Your task to perform on an android device: turn off translation in the chrome app Image 0: 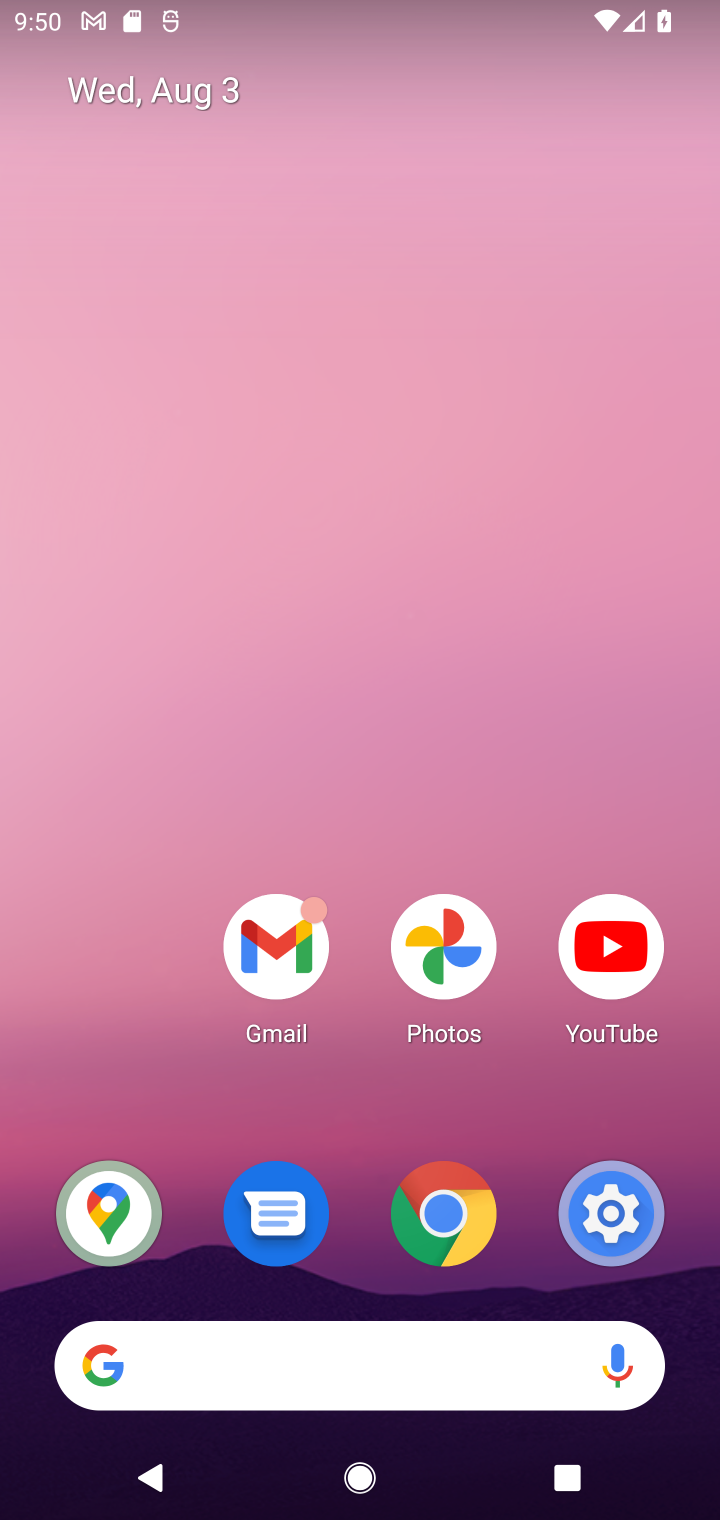
Step 0: click (428, 1233)
Your task to perform on an android device: turn off translation in the chrome app Image 1: 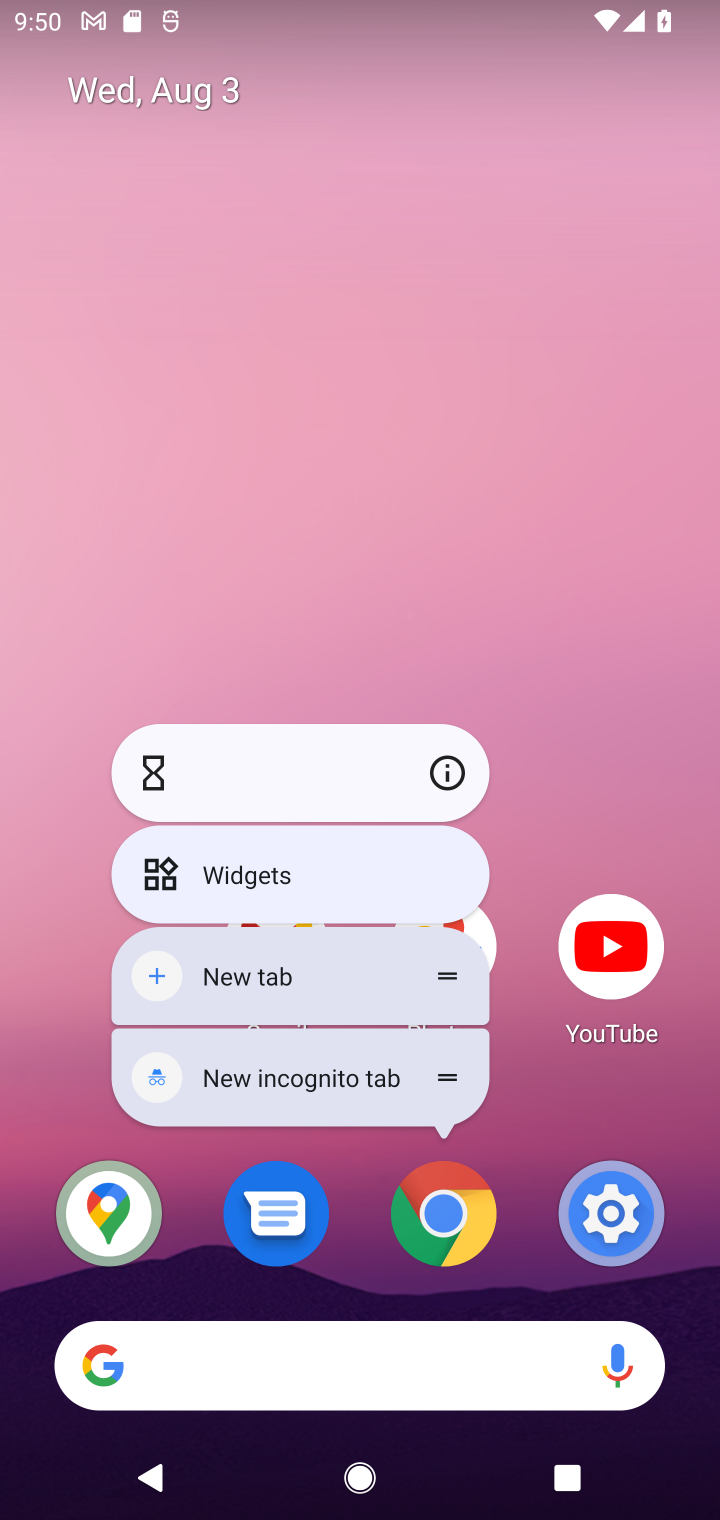
Step 1: click (501, 1214)
Your task to perform on an android device: turn off translation in the chrome app Image 2: 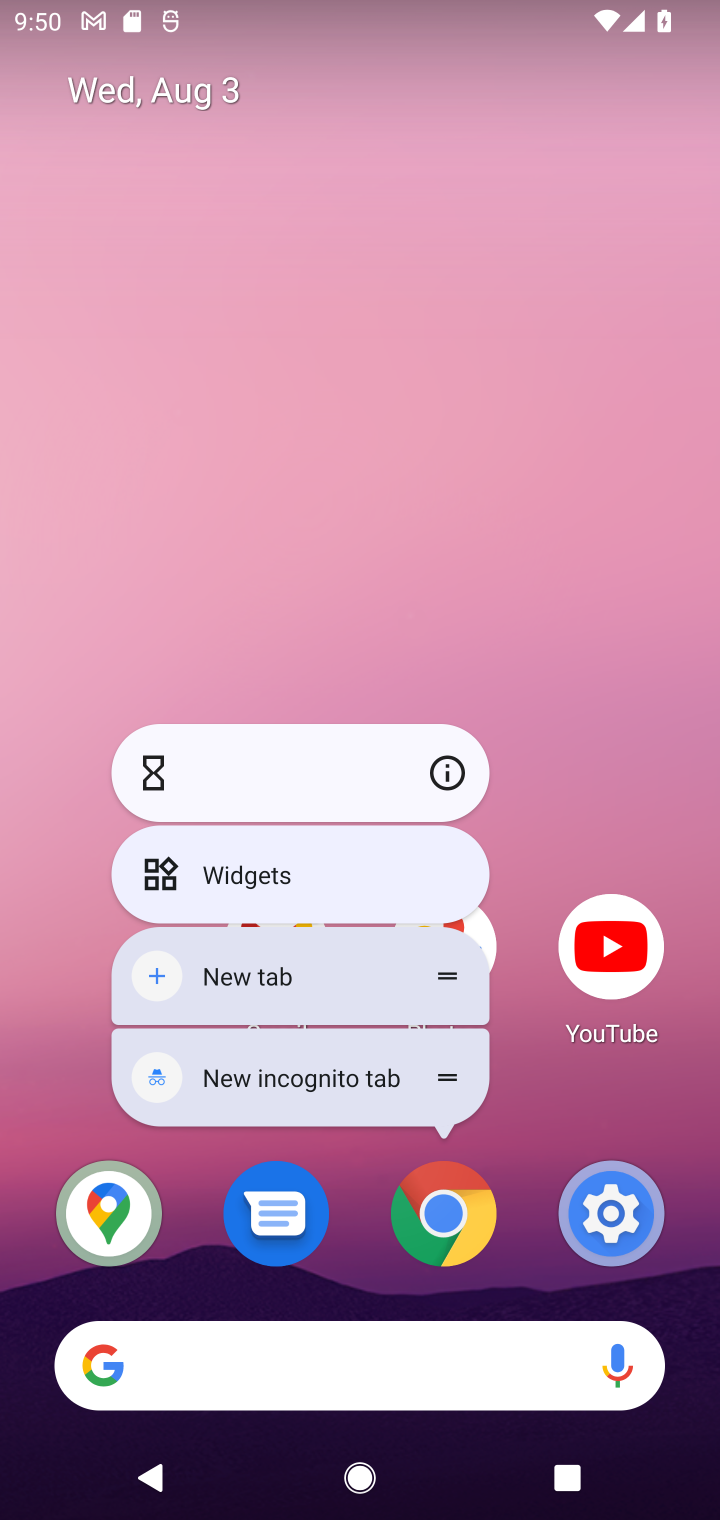
Step 2: click (445, 1231)
Your task to perform on an android device: turn off translation in the chrome app Image 3: 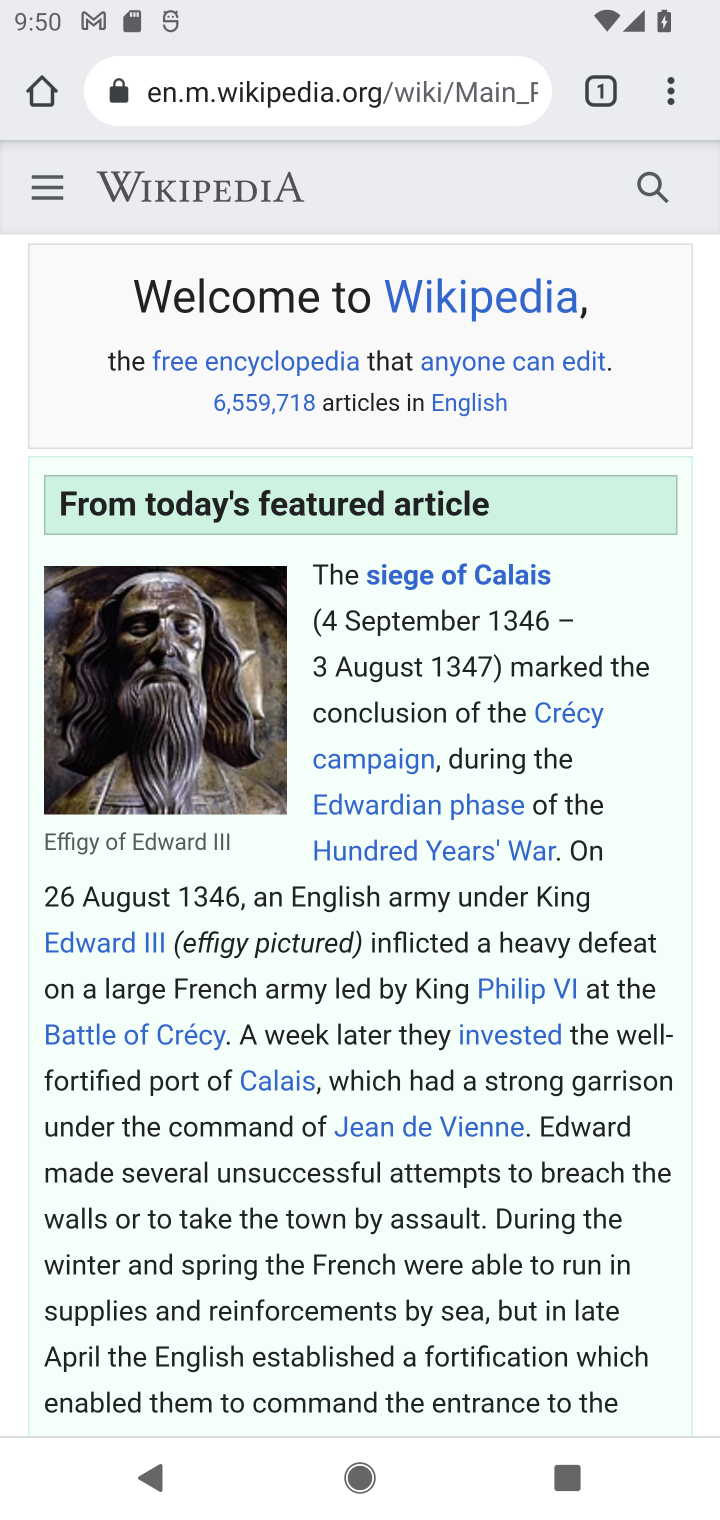
Step 3: click (671, 104)
Your task to perform on an android device: turn off translation in the chrome app Image 4: 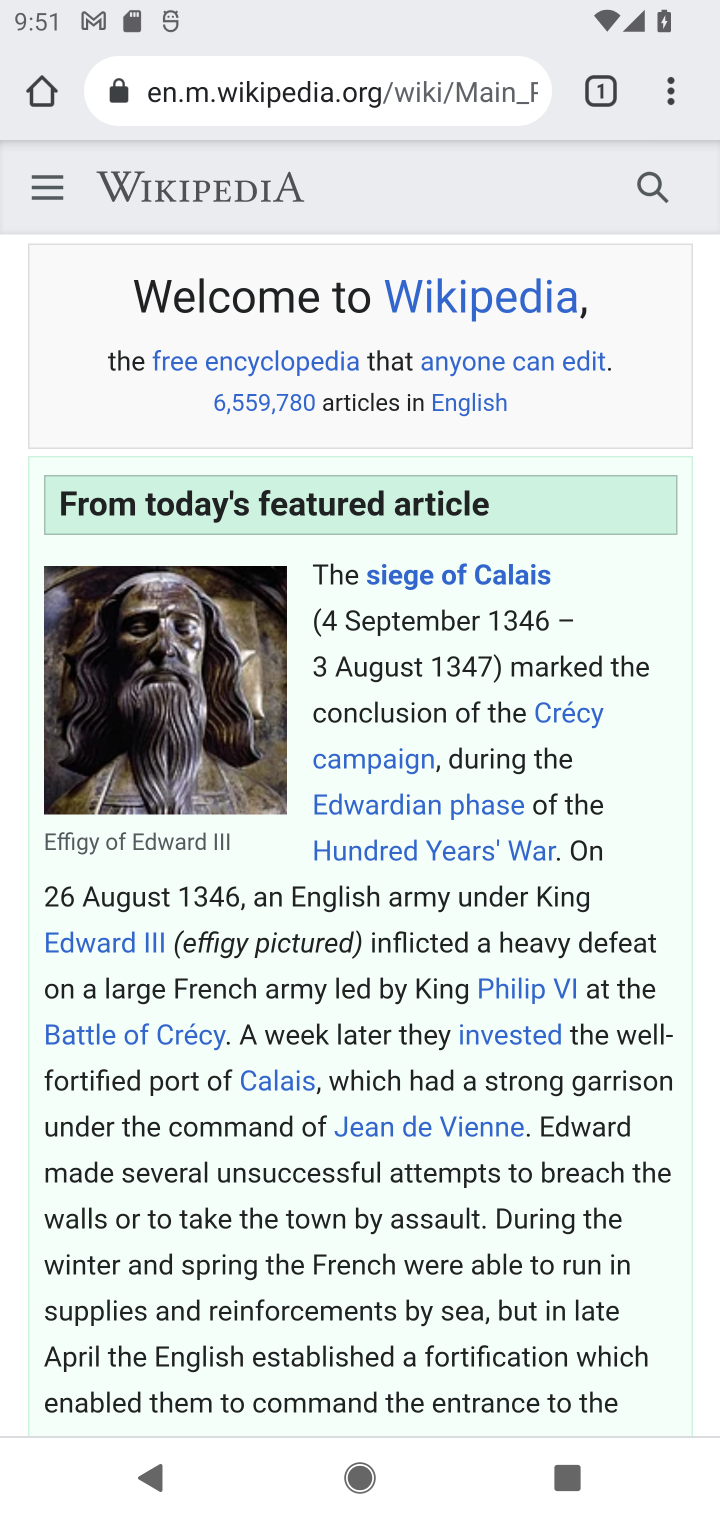
Step 4: click (665, 98)
Your task to perform on an android device: turn off translation in the chrome app Image 5: 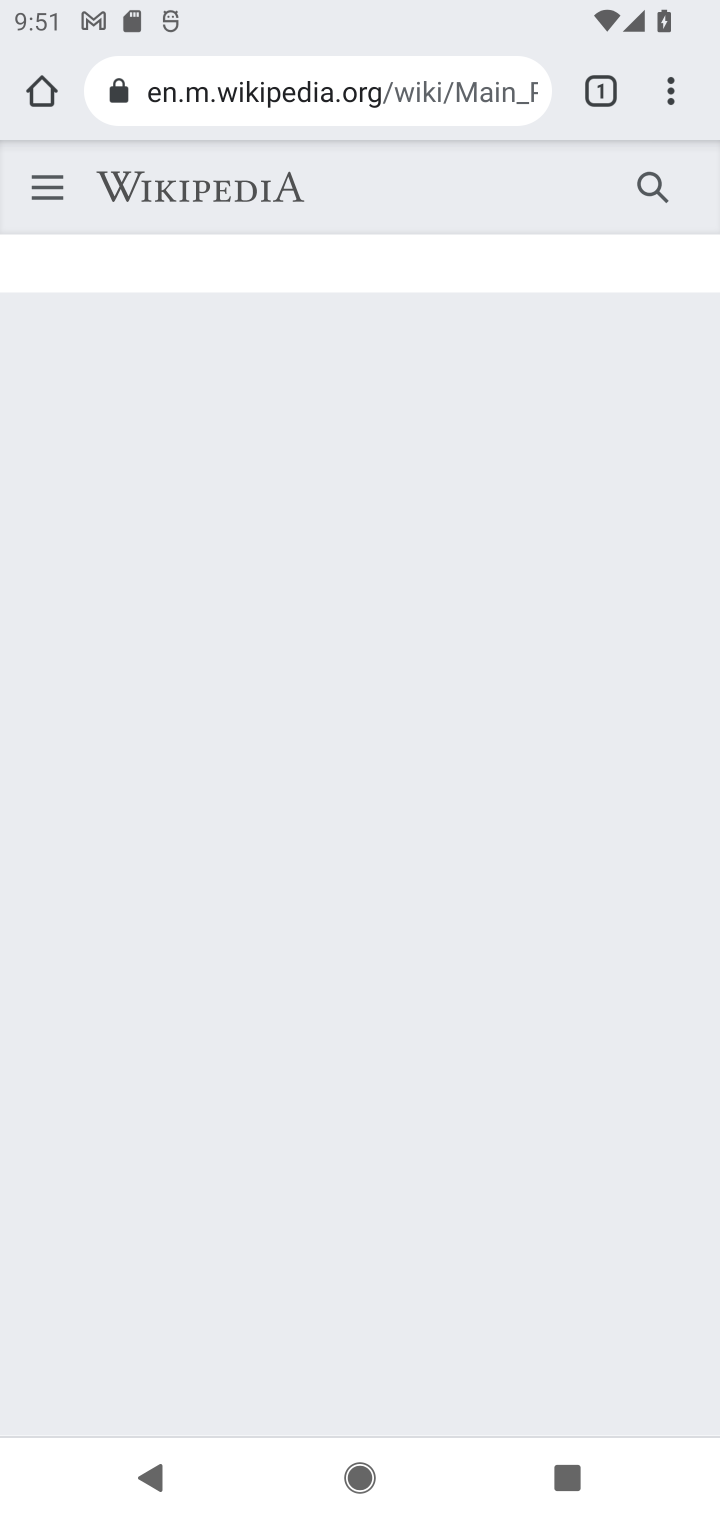
Step 5: click (653, 89)
Your task to perform on an android device: turn off translation in the chrome app Image 6: 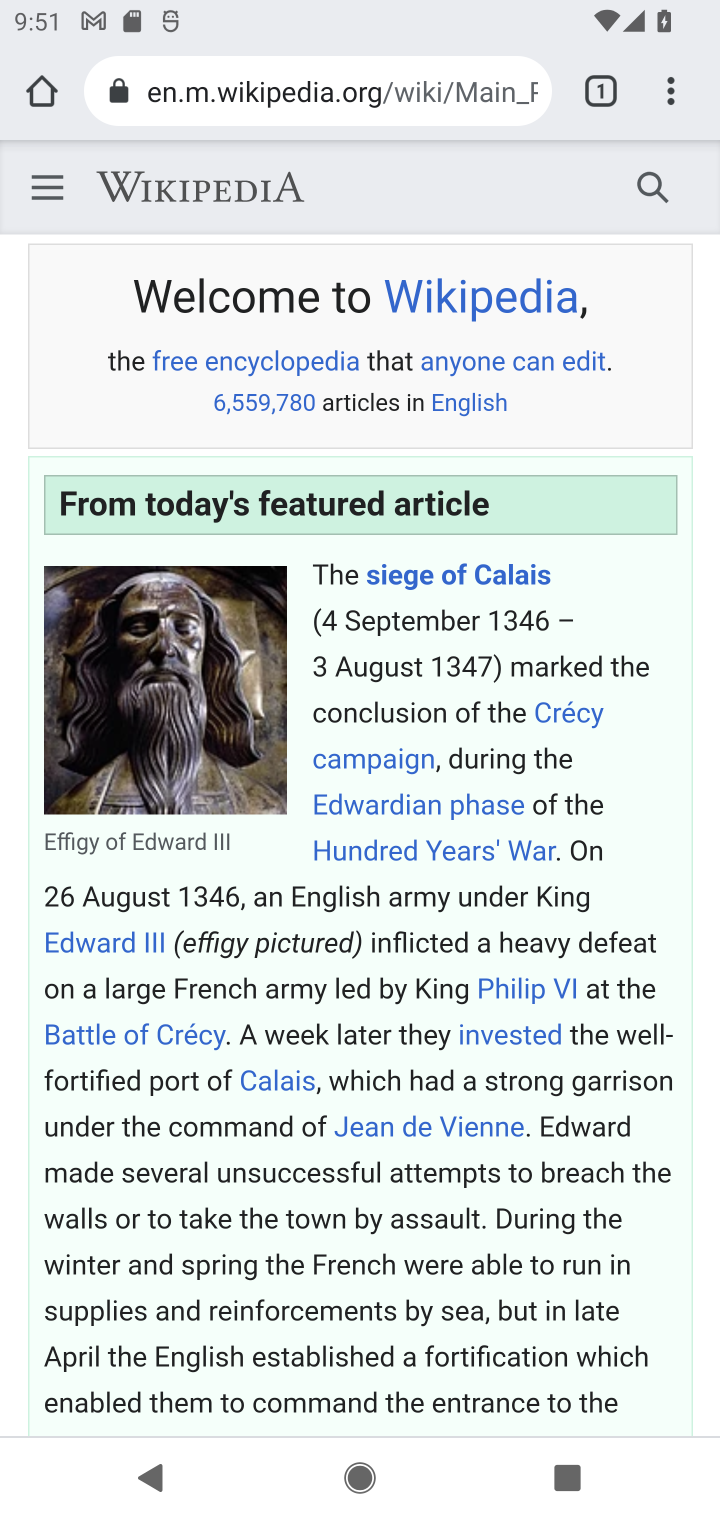
Step 6: drag from (671, 87) to (380, 1067)
Your task to perform on an android device: turn off translation in the chrome app Image 7: 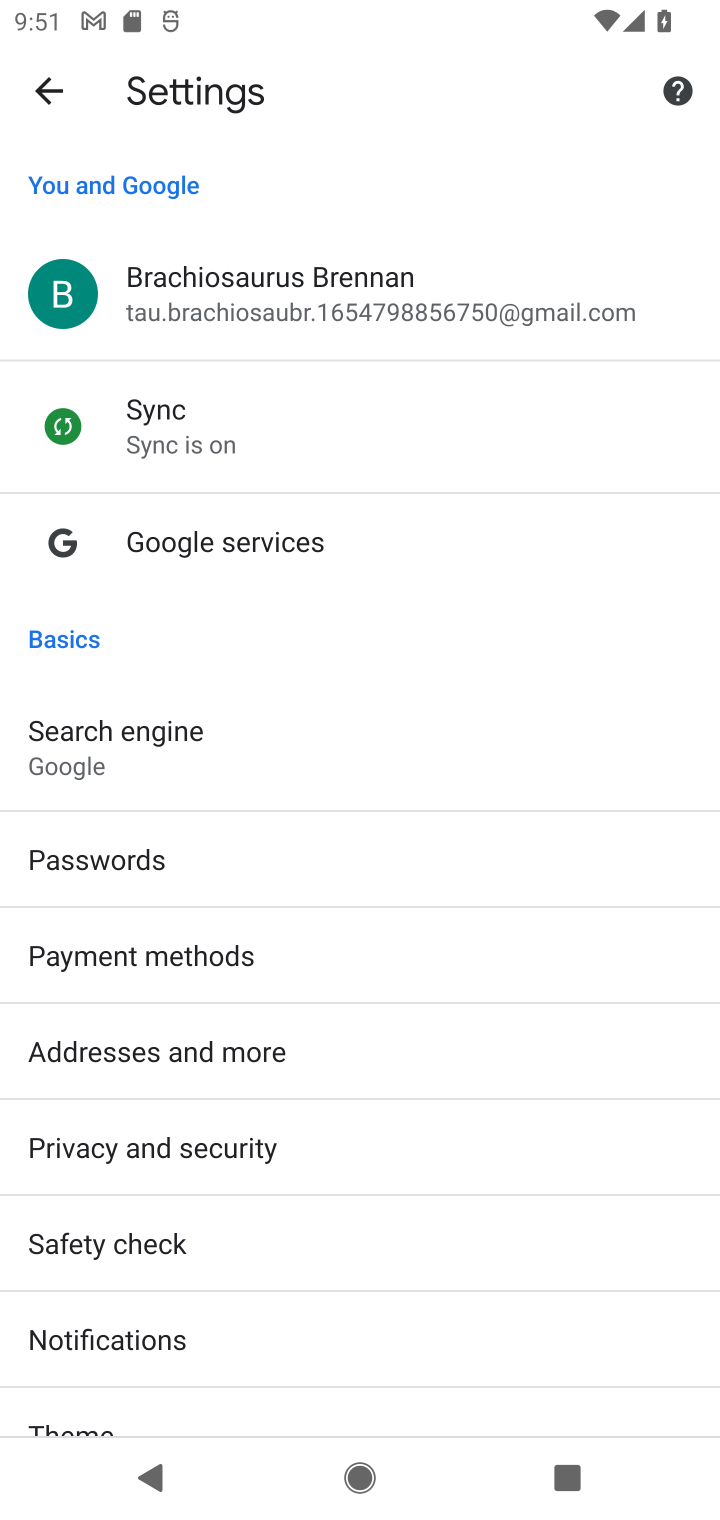
Step 7: drag from (255, 1186) to (225, 220)
Your task to perform on an android device: turn off translation in the chrome app Image 8: 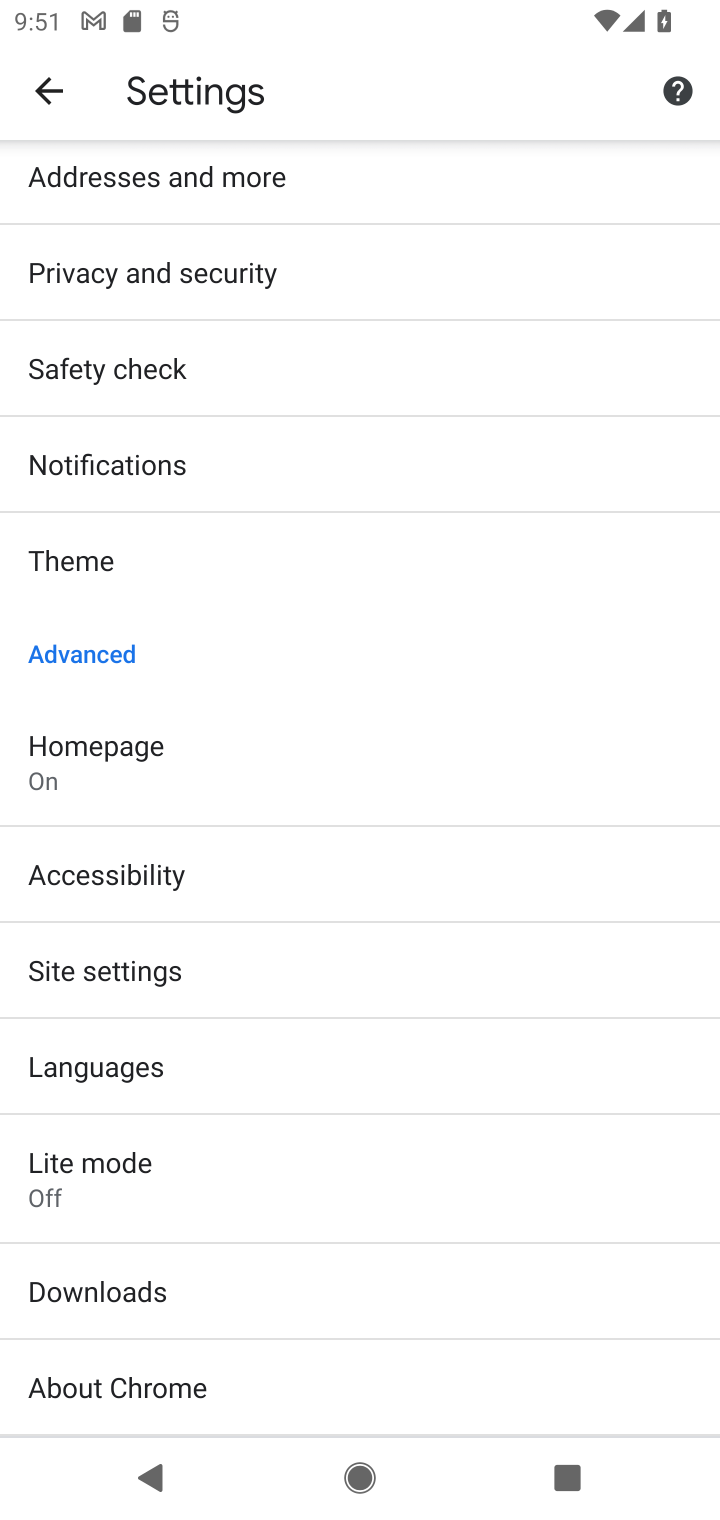
Step 8: click (133, 1060)
Your task to perform on an android device: turn off translation in the chrome app Image 9: 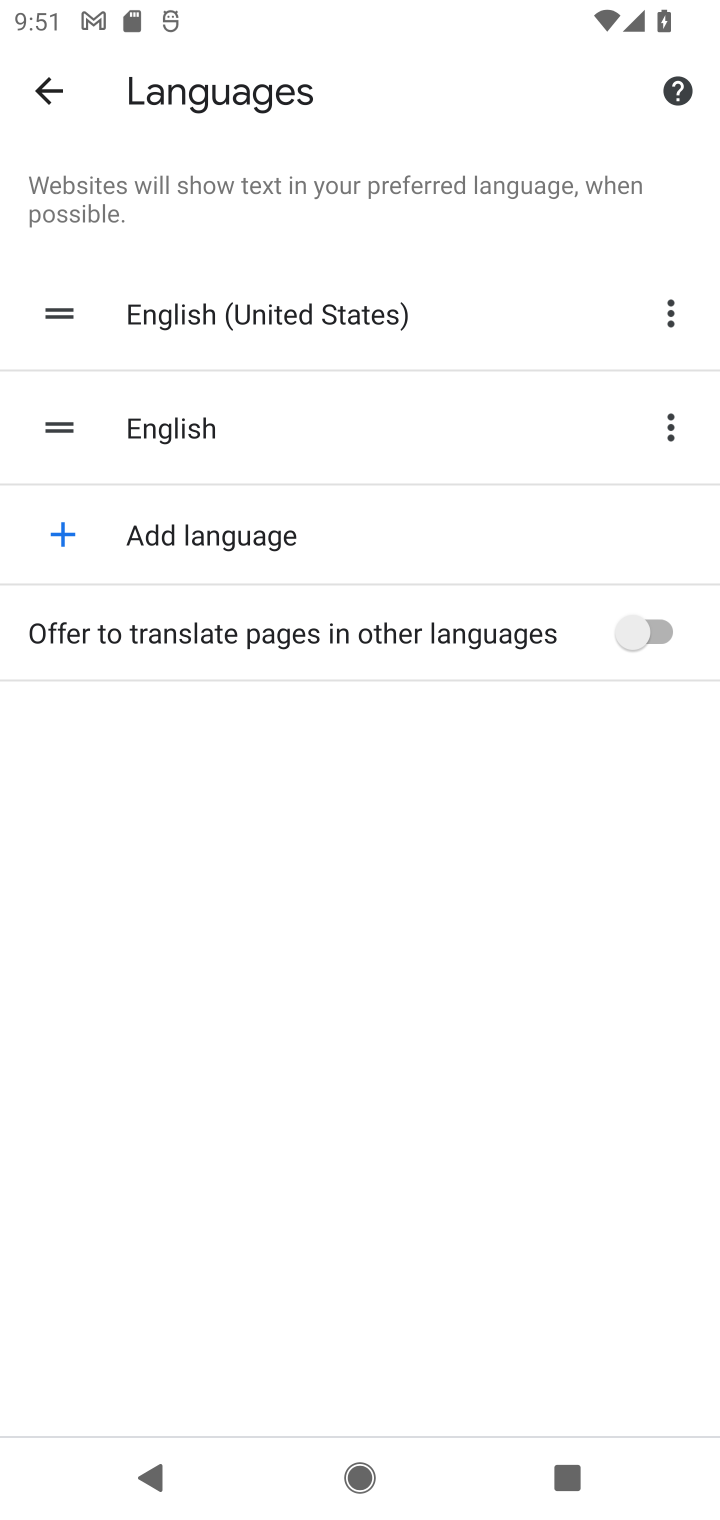
Step 9: task complete